Your task to perform on an android device: turn on data saver in the chrome app Image 0: 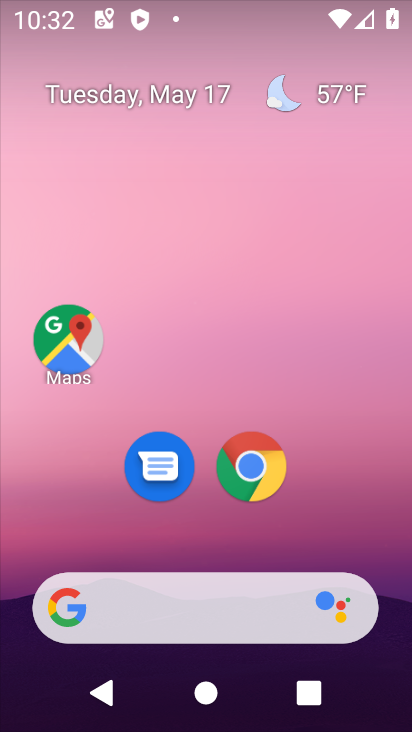
Step 0: click (250, 481)
Your task to perform on an android device: turn on data saver in the chrome app Image 1: 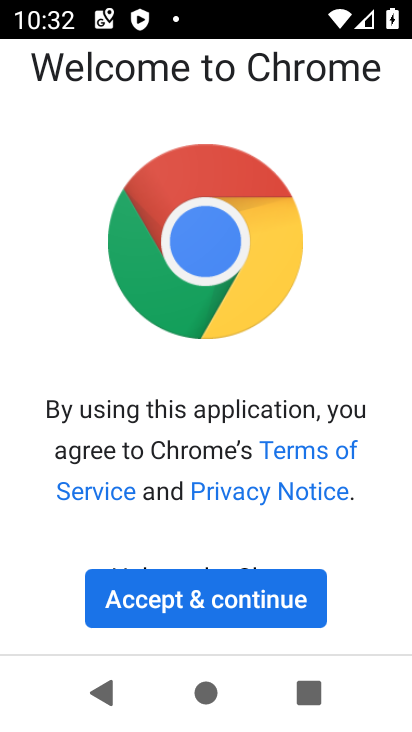
Step 1: click (263, 604)
Your task to perform on an android device: turn on data saver in the chrome app Image 2: 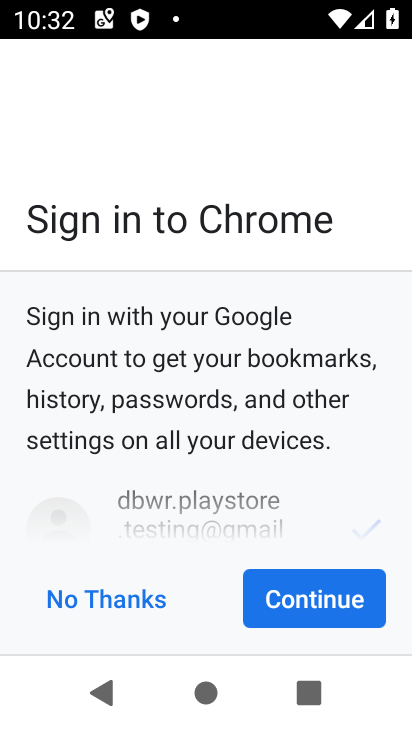
Step 2: click (323, 607)
Your task to perform on an android device: turn on data saver in the chrome app Image 3: 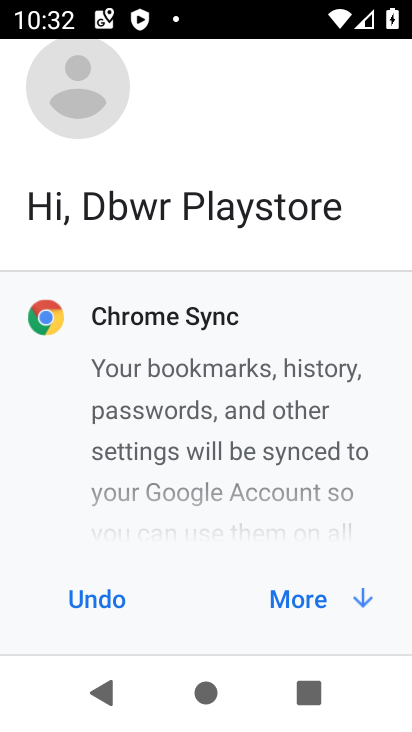
Step 3: click (323, 607)
Your task to perform on an android device: turn on data saver in the chrome app Image 4: 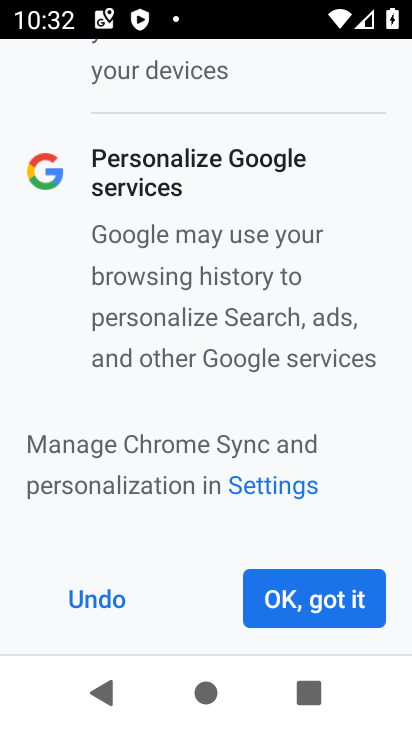
Step 4: click (323, 607)
Your task to perform on an android device: turn on data saver in the chrome app Image 5: 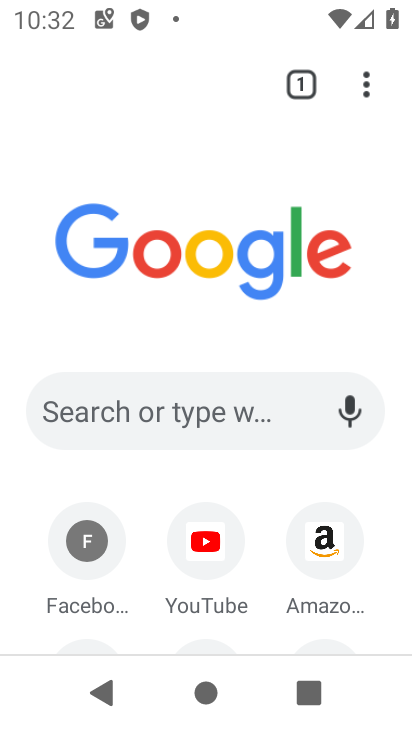
Step 5: drag from (372, 91) to (267, 535)
Your task to perform on an android device: turn on data saver in the chrome app Image 6: 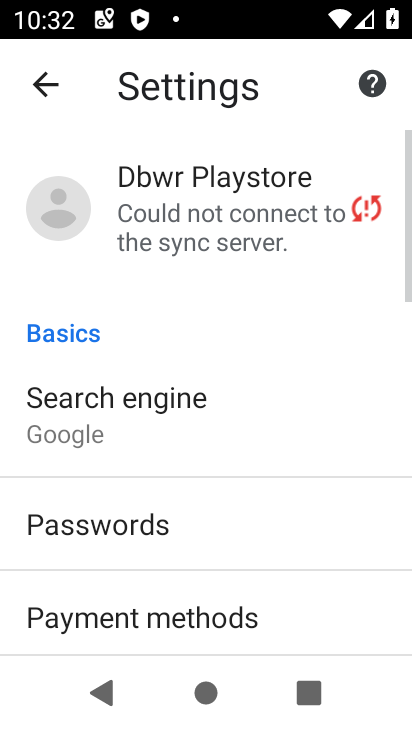
Step 6: drag from (181, 599) to (281, 166)
Your task to perform on an android device: turn on data saver in the chrome app Image 7: 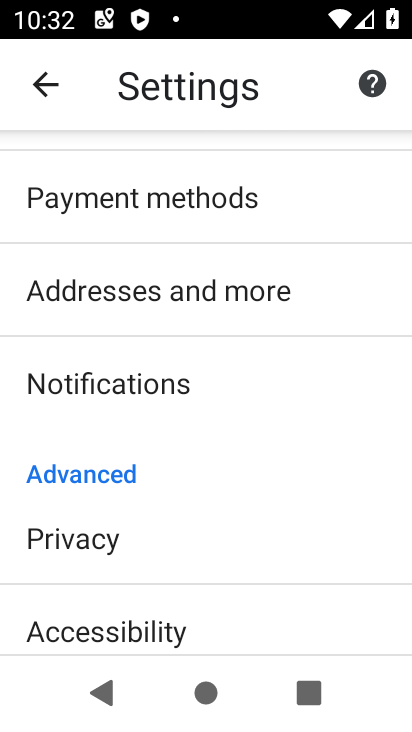
Step 7: drag from (216, 586) to (311, 166)
Your task to perform on an android device: turn on data saver in the chrome app Image 8: 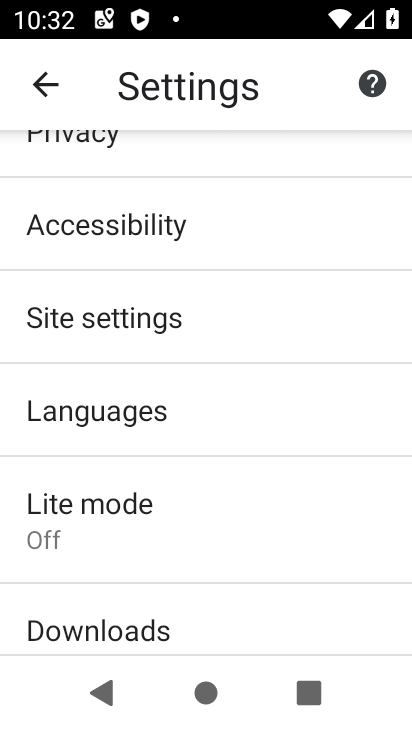
Step 8: click (221, 514)
Your task to perform on an android device: turn on data saver in the chrome app Image 9: 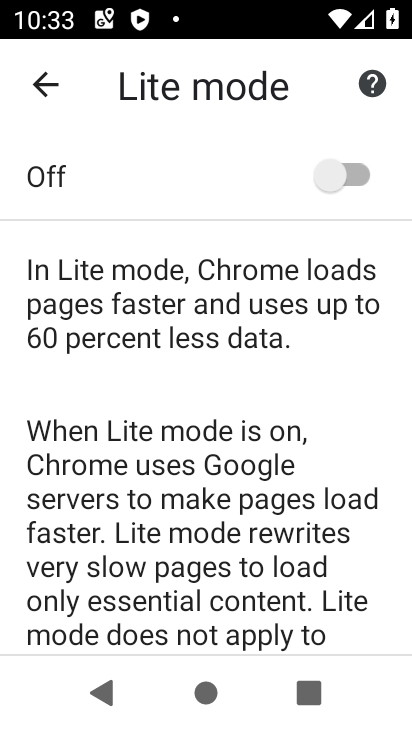
Step 9: click (372, 170)
Your task to perform on an android device: turn on data saver in the chrome app Image 10: 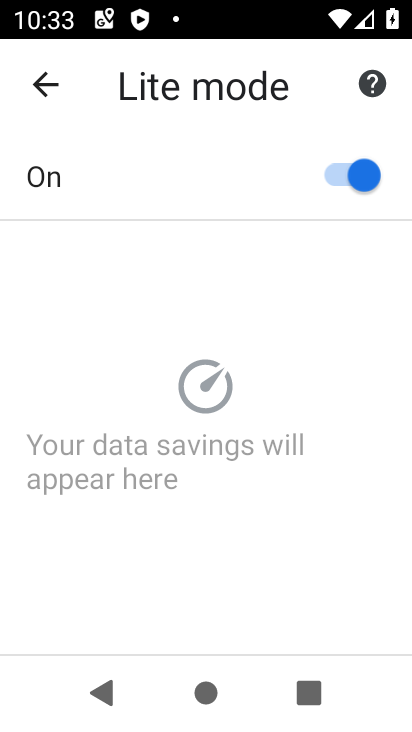
Step 10: task complete